Your task to perform on an android device: When is my next appointment? Image 0: 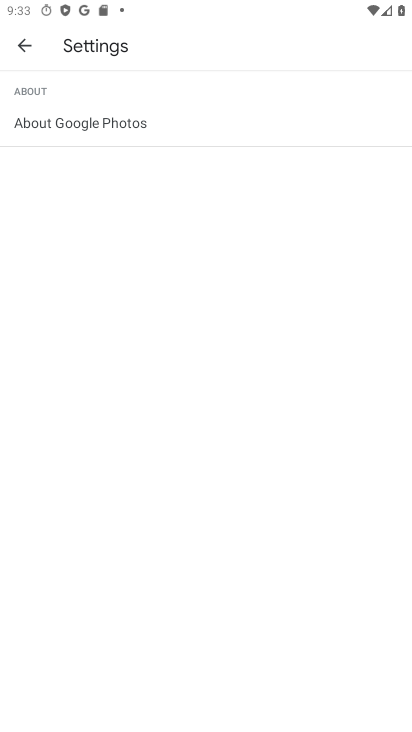
Step 0: press home button
Your task to perform on an android device: When is my next appointment? Image 1: 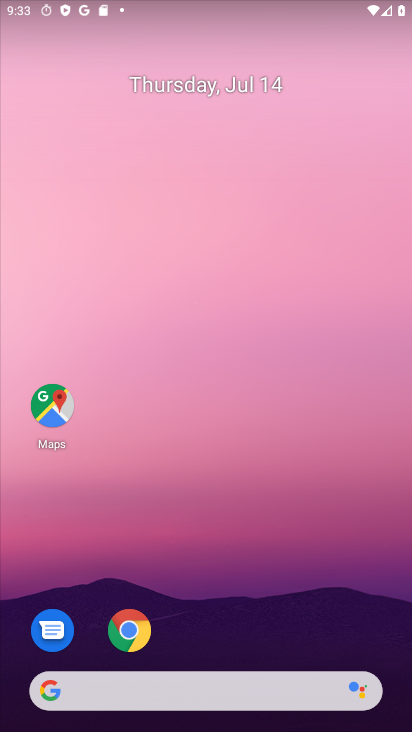
Step 1: drag from (29, 713) to (163, 209)
Your task to perform on an android device: When is my next appointment? Image 2: 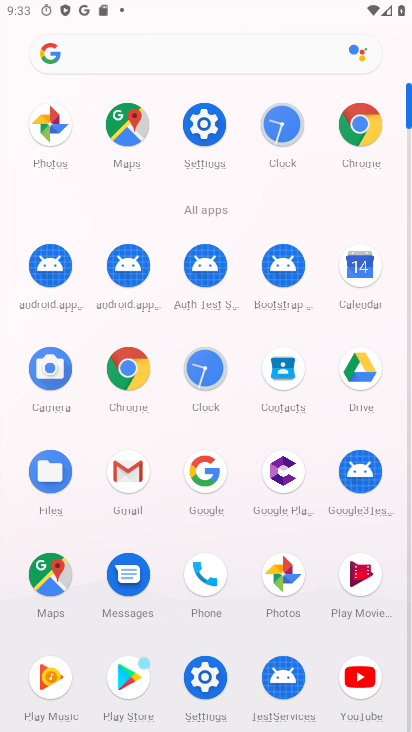
Step 2: click (350, 261)
Your task to perform on an android device: When is my next appointment? Image 3: 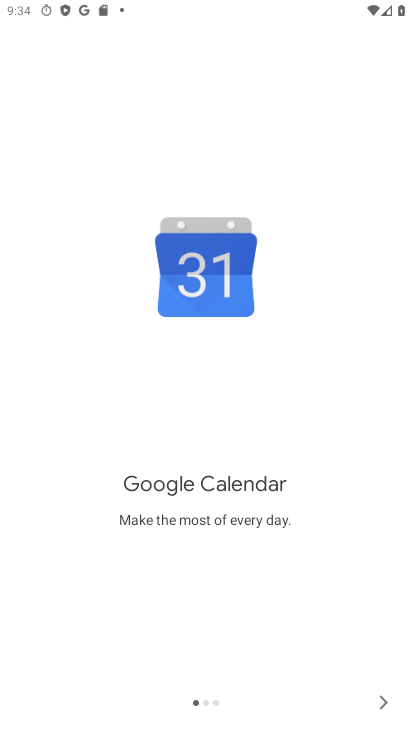
Step 3: click (381, 704)
Your task to perform on an android device: When is my next appointment? Image 4: 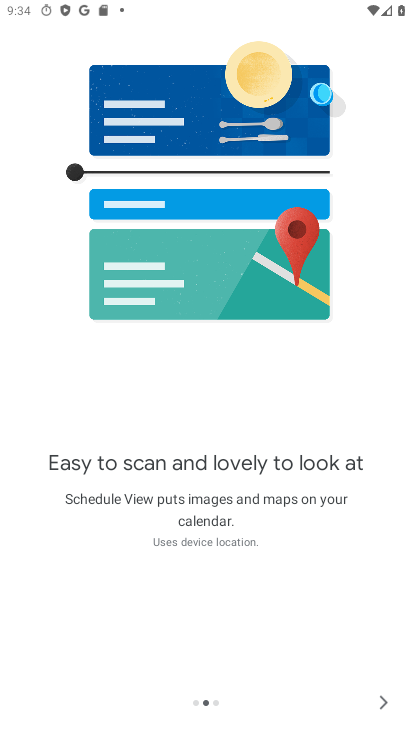
Step 4: click (381, 704)
Your task to perform on an android device: When is my next appointment? Image 5: 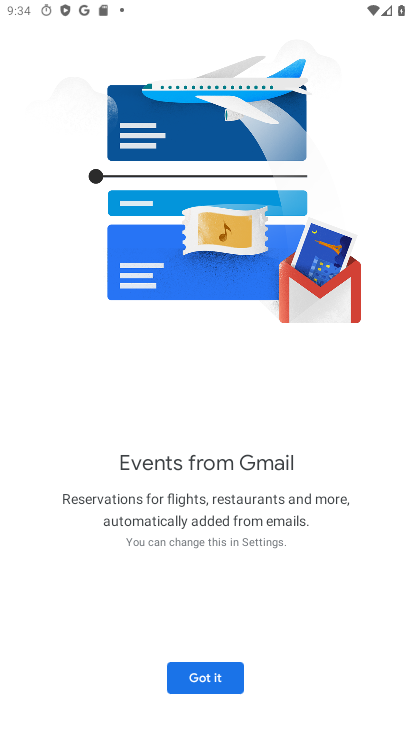
Step 5: click (214, 685)
Your task to perform on an android device: When is my next appointment? Image 6: 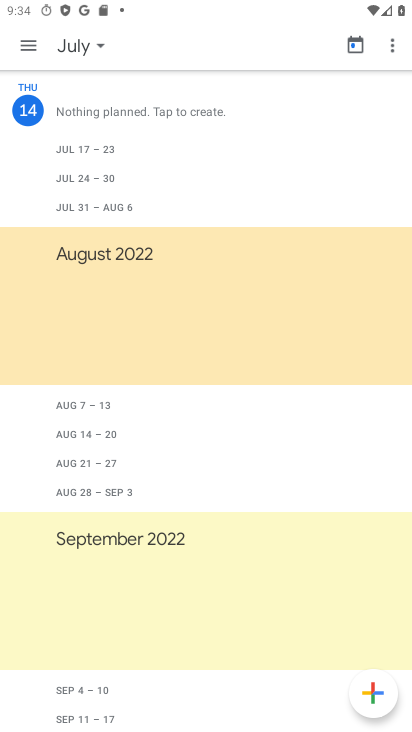
Step 6: drag from (159, 168) to (297, 166)
Your task to perform on an android device: When is my next appointment? Image 7: 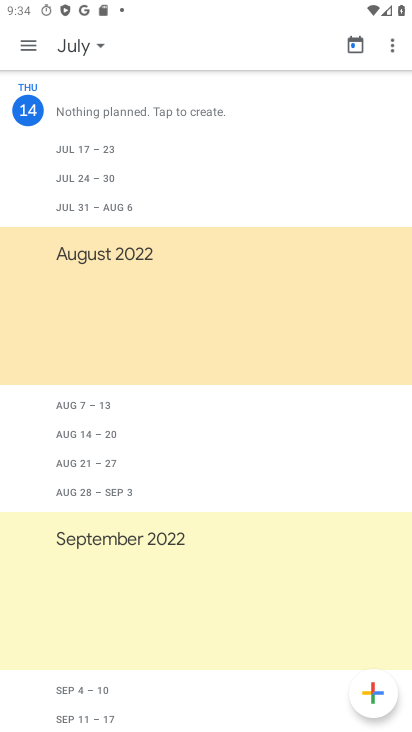
Step 7: click (80, 45)
Your task to perform on an android device: When is my next appointment? Image 8: 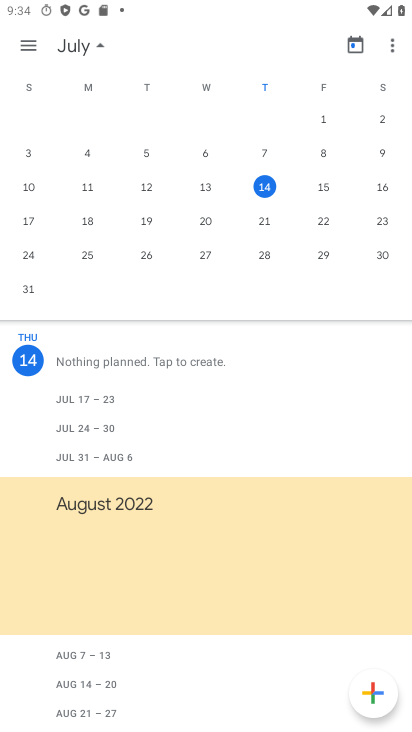
Step 8: click (22, 52)
Your task to perform on an android device: When is my next appointment? Image 9: 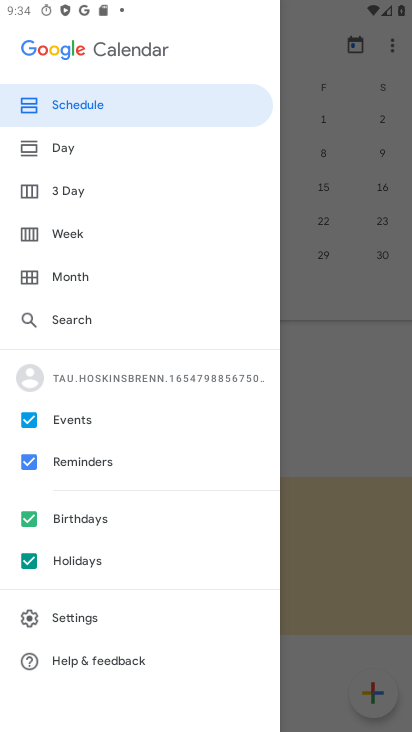
Step 9: task complete